Your task to perform on an android device: delete the emails in spam in the gmail app Image 0: 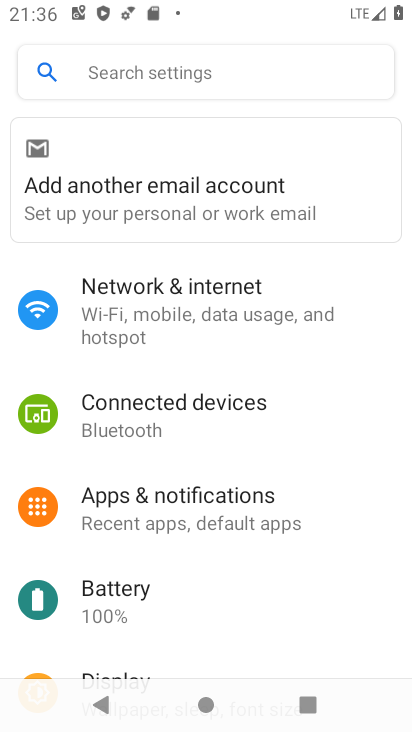
Step 0: press home button
Your task to perform on an android device: delete the emails in spam in the gmail app Image 1: 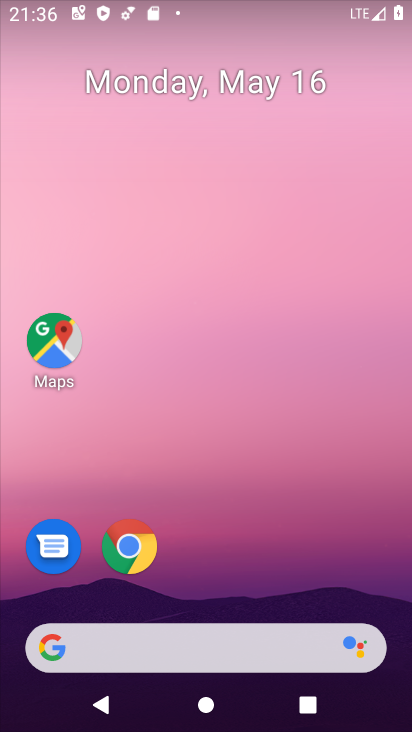
Step 1: drag from (291, 669) to (290, 215)
Your task to perform on an android device: delete the emails in spam in the gmail app Image 2: 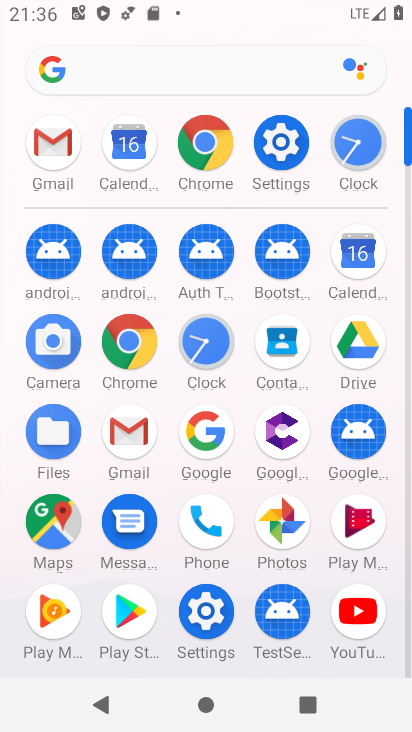
Step 2: click (65, 168)
Your task to perform on an android device: delete the emails in spam in the gmail app Image 3: 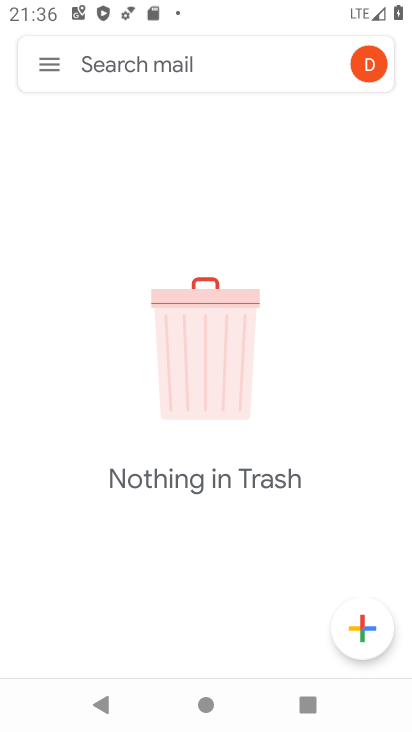
Step 3: click (51, 66)
Your task to perform on an android device: delete the emails in spam in the gmail app Image 4: 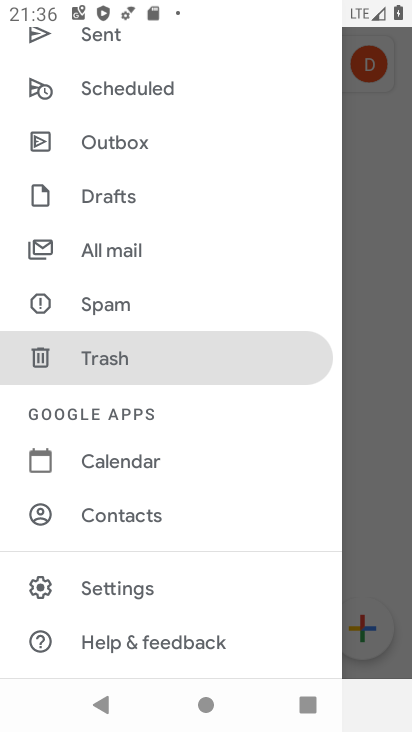
Step 4: click (130, 587)
Your task to perform on an android device: delete the emails in spam in the gmail app Image 5: 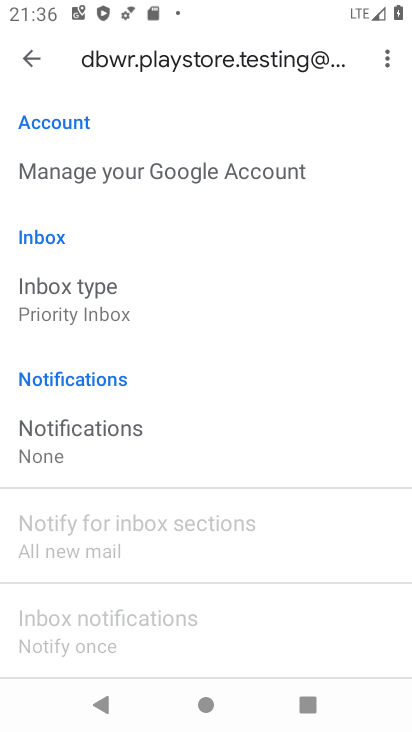
Step 5: click (24, 57)
Your task to perform on an android device: delete the emails in spam in the gmail app Image 6: 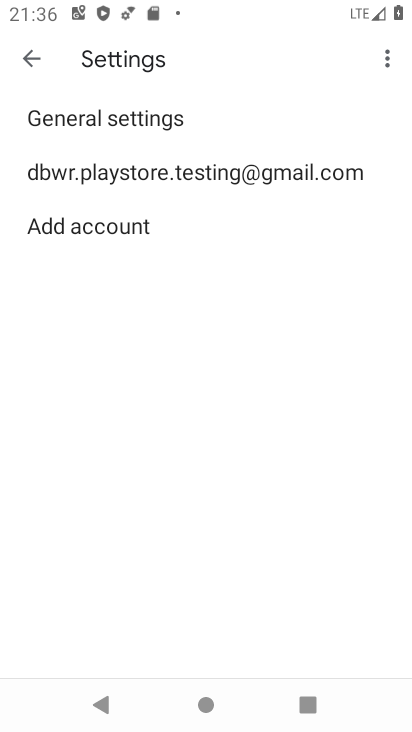
Step 6: click (29, 60)
Your task to perform on an android device: delete the emails in spam in the gmail app Image 7: 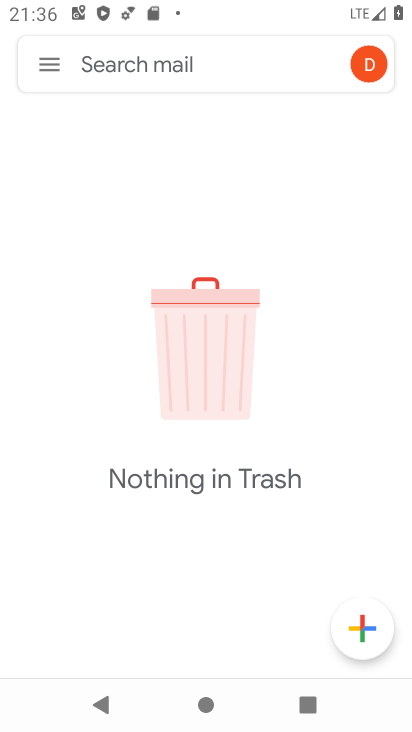
Step 7: click (45, 63)
Your task to perform on an android device: delete the emails in spam in the gmail app Image 8: 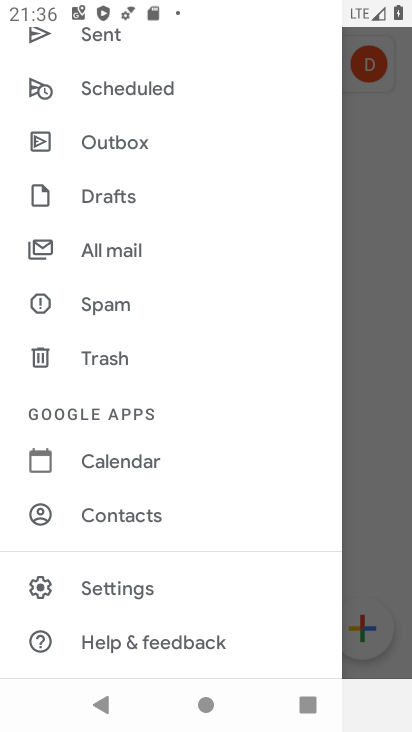
Step 8: click (129, 309)
Your task to perform on an android device: delete the emails in spam in the gmail app Image 9: 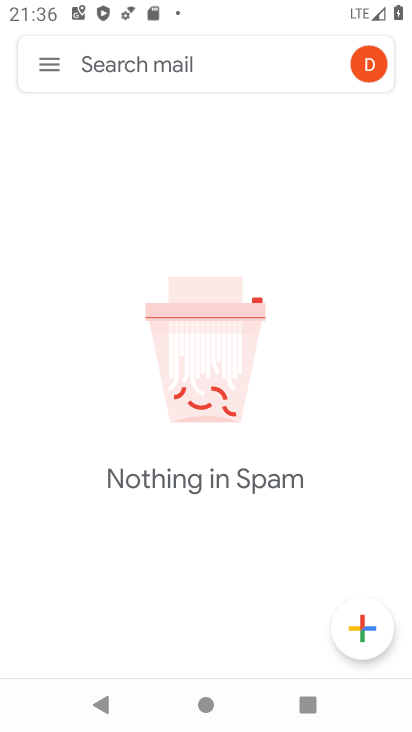
Step 9: task complete